Your task to perform on an android device: empty trash in google photos Image 0: 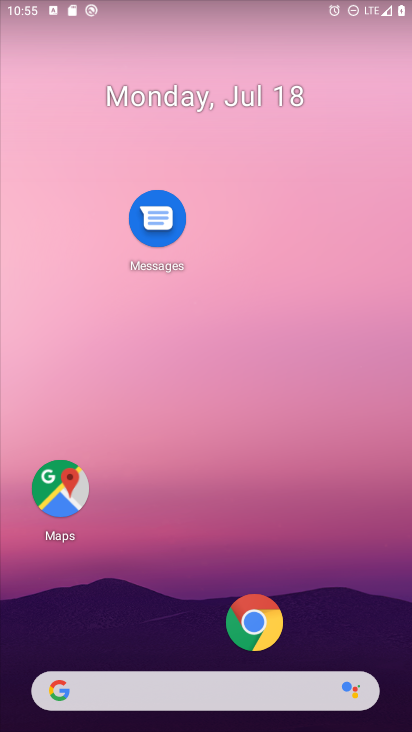
Step 0: drag from (219, 646) to (275, 201)
Your task to perform on an android device: empty trash in google photos Image 1: 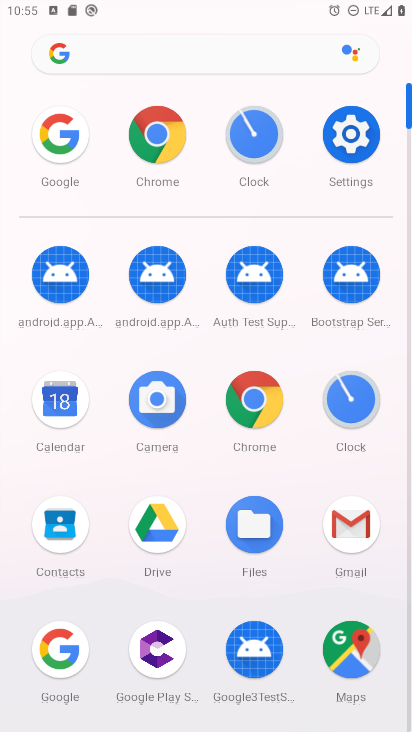
Step 1: drag from (245, 565) to (326, 207)
Your task to perform on an android device: empty trash in google photos Image 2: 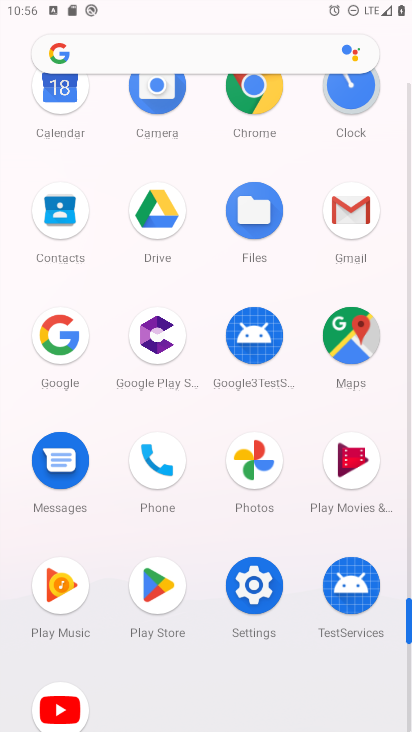
Step 2: click (262, 484)
Your task to perform on an android device: empty trash in google photos Image 3: 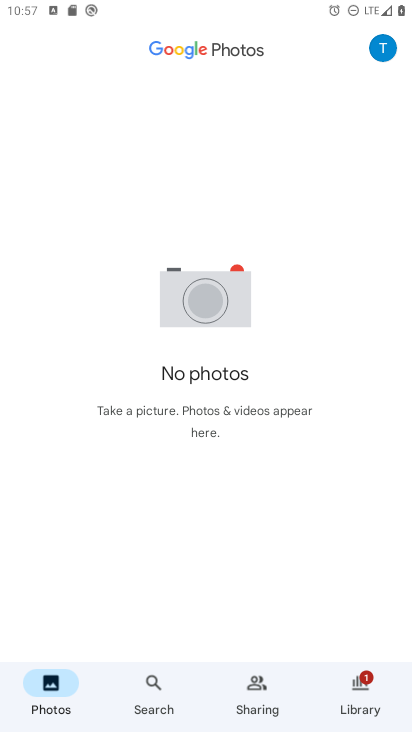
Step 3: click (373, 56)
Your task to perform on an android device: empty trash in google photos Image 4: 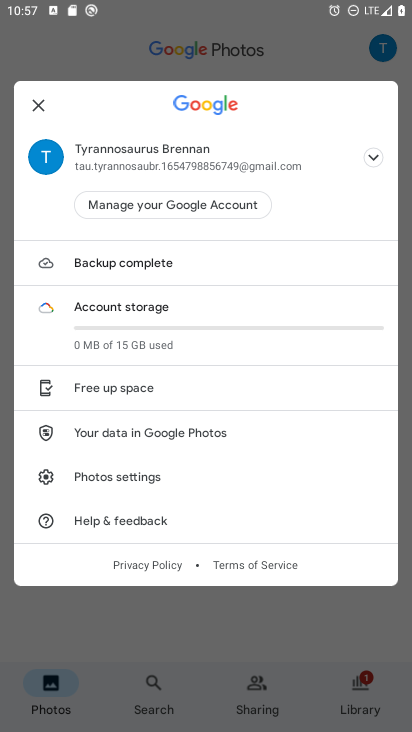
Step 4: task complete